Your task to perform on an android device: View the shopping cart on costco.com. Search for logitech g502 on costco.com, select the first entry, add it to the cart, then select checkout. Image 0: 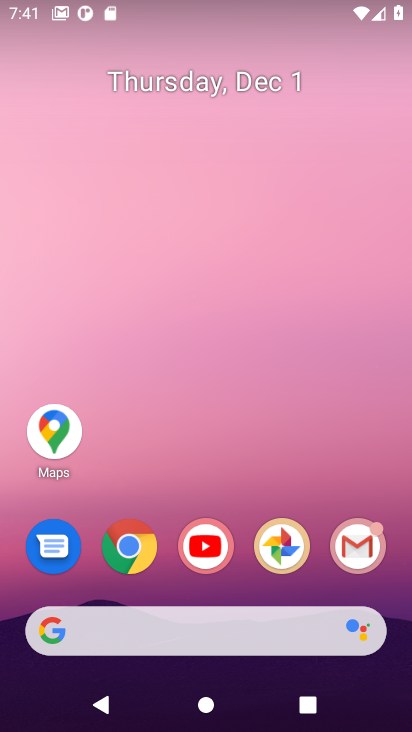
Step 0: click (134, 547)
Your task to perform on an android device: View the shopping cart on costco.com. Search for logitech g502 on costco.com, select the first entry, add it to the cart, then select checkout. Image 1: 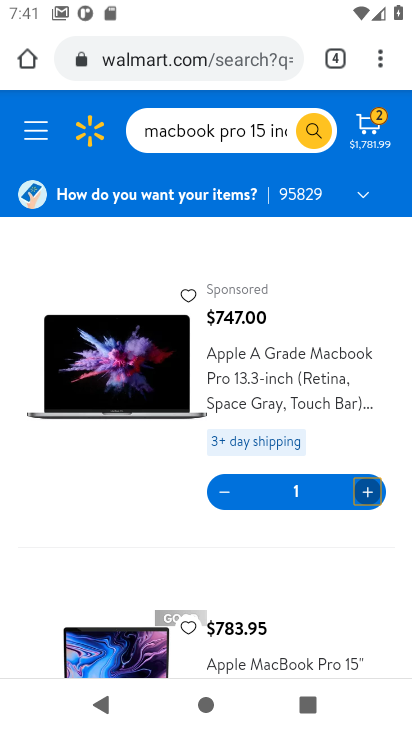
Step 1: click (132, 68)
Your task to perform on an android device: View the shopping cart on costco.com. Search for logitech g502 on costco.com, select the first entry, add it to the cart, then select checkout. Image 2: 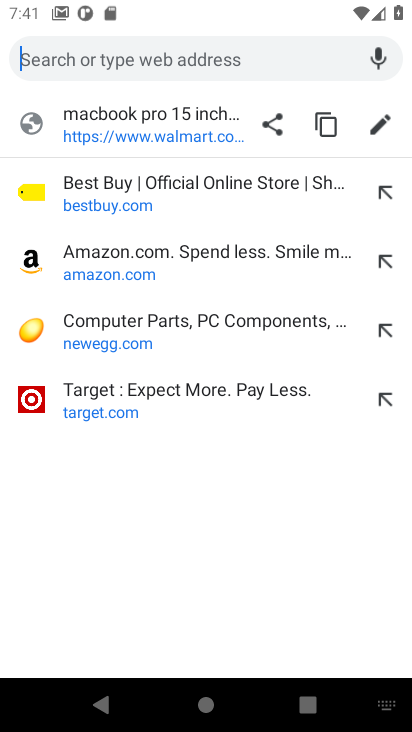
Step 2: type "costco.com"
Your task to perform on an android device: View the shopping cart on costco.com. Search for logitech g502 on costco.com, select the first entry, add it to the cart, then select checkout. Image 3: 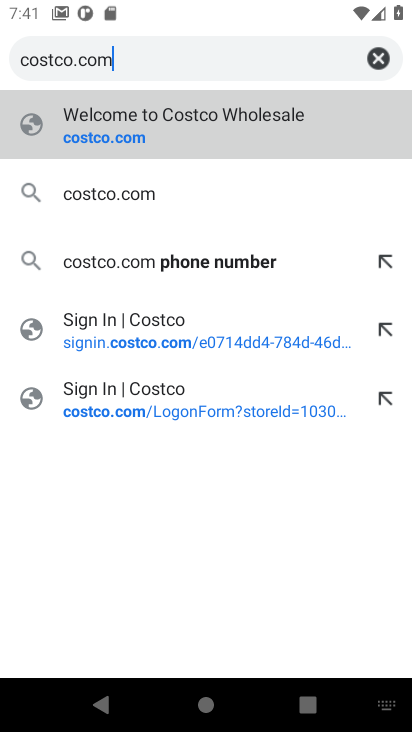
Step 3: click (118, 144)
Your task to perform on an android device: View the shopping cart on costco.com. Search for logitech g502 on costco.com, select the first entry, add it to the cart, then select checkout. Image 4: 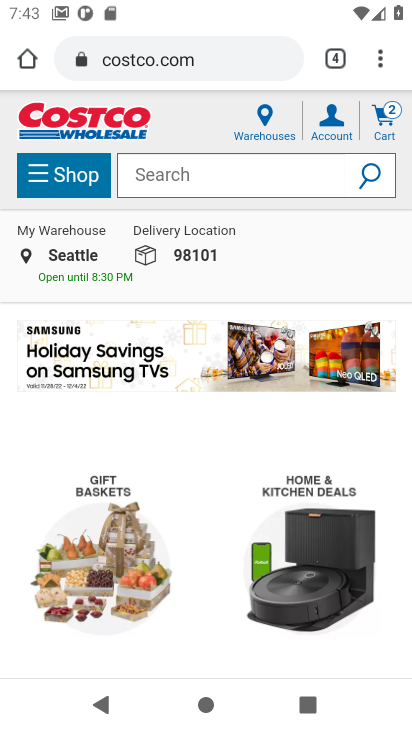
Step 4: click (379, 120)
Your task to perform on an android device: View the shopping cart on costco.com. Search for logitech g502 on costco.com, select the first entry, add it to the cart, then select checkout. Image 5: 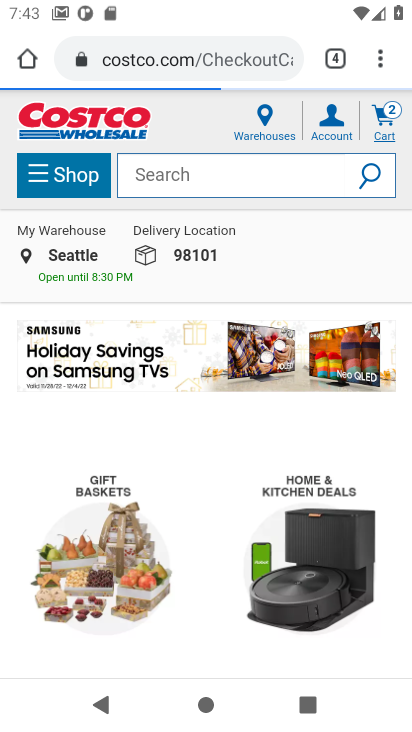
Step 5: click (381, 122)
Your task to perform on an android device: View the shopping cart on costco.com. Search for logitech g502 on costco.com, select the first entry, add it to the cart, then select checkout. Image 6: 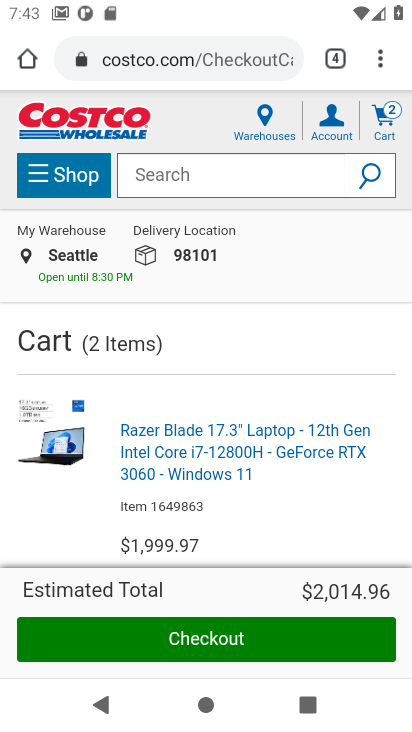
Step 6: drag from (215, 543) to (211, 355)
Your task to perform on an android device: View the shopping cart on costco.com. Search for logitech g502 on costco.com, select the first entry, add it to the cart, then select checkout. Image 7: 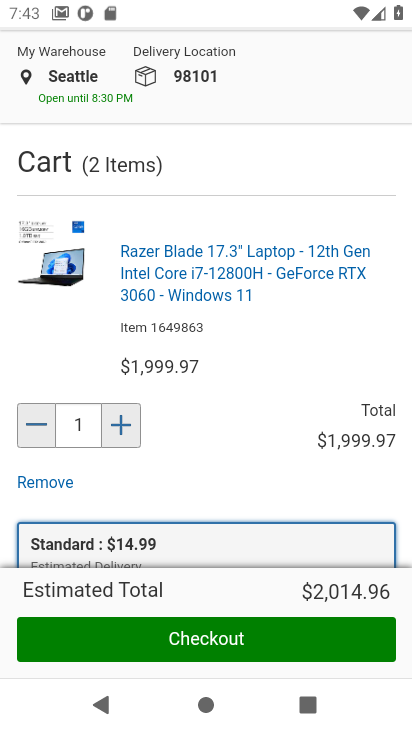
Step 7: drag from (217, 271) to (230, 454)
Your task to perform on an android device: View the shopping cart on costco.com. Search for logitech g502 on costco.com, select the first entry, add it to the cart, then select checkout. Image 8: 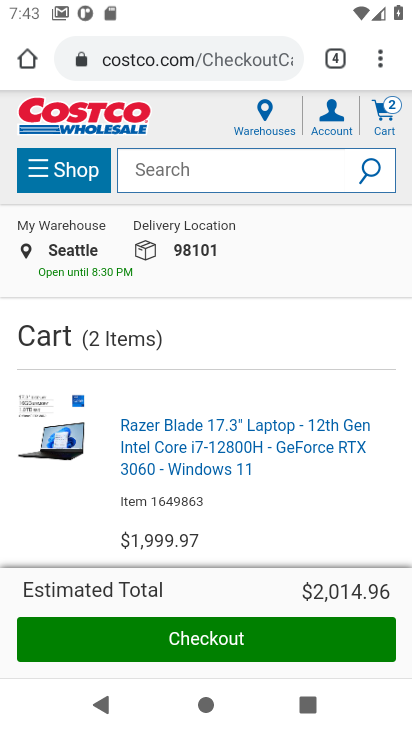
Step 8: click (165, 173)
Your task to perform on an android device: View the shopping cart on costco.com. Search for logitech g502 on costco.com, select the first entry, add it to the cart, then select checkout. Image 9: 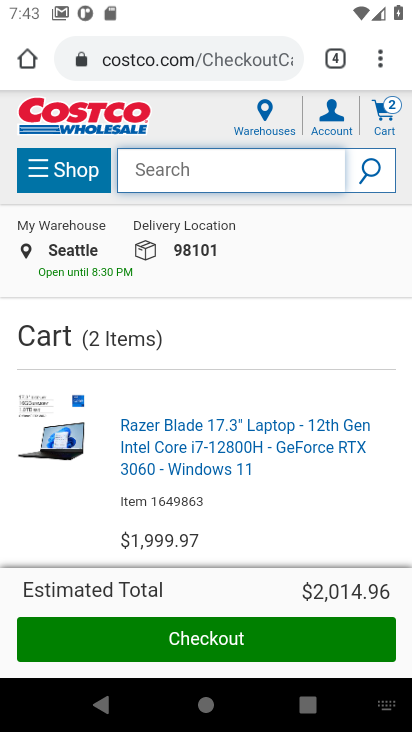
Step 9: type "logitech g502"
Your task to perform on an android device: View the shopping cart on costco.com. Search for logitech g502 on costco.com, select the first entry, add it to the cart, then select checkout. Image 10: 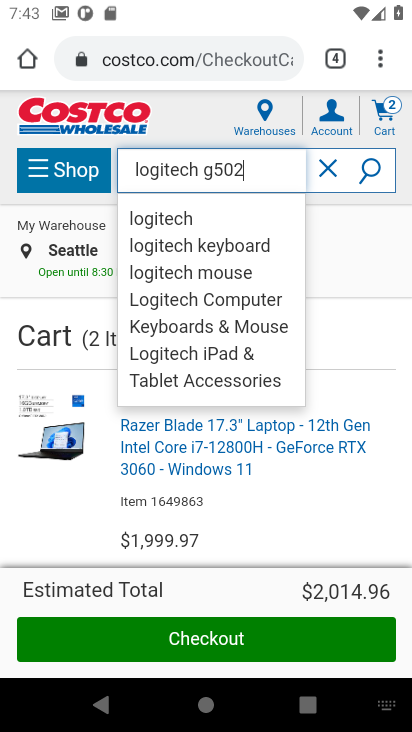
Step 10: click (364, 167)
Your task to perform on an android device: View the shopping cart on costco.com. Search for logitech g502 on costco.com, select the first entry, add it to the cart, then select checkout. Image 11: 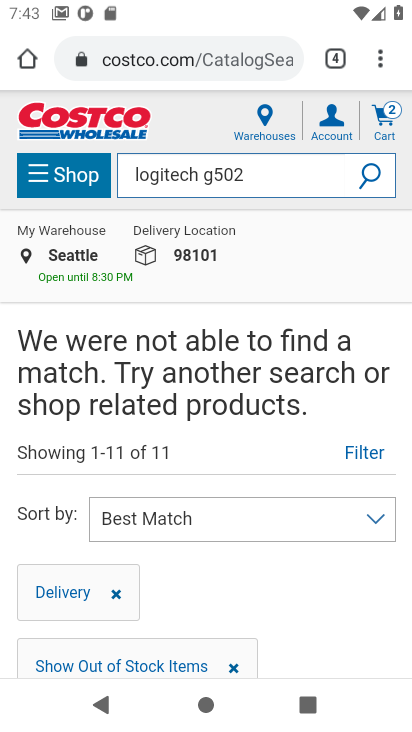
Step 11: task complete